Your task to perform on an android device: Open Amazon Image 0: 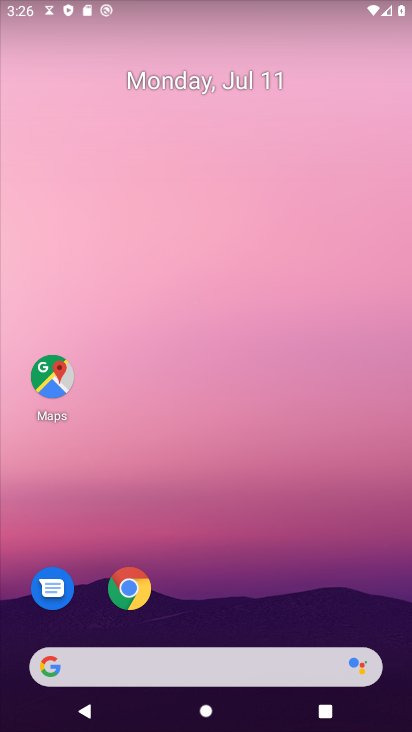
Step 0: click (116, 590)
Your task to perform on an android device: Open Amazon Image 1: 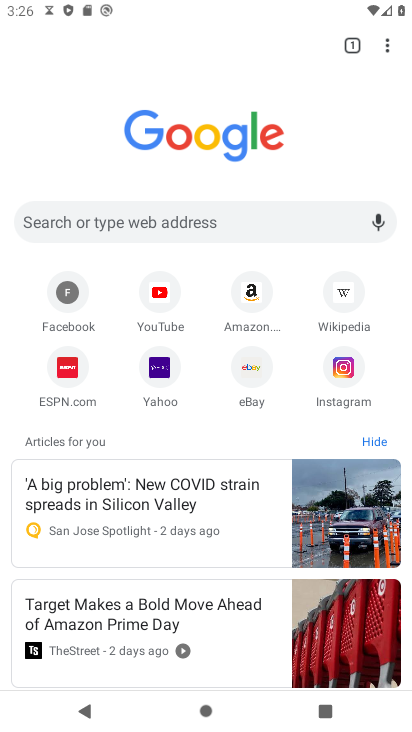
Step 1: click (244, 292)
Your task to perform on an android device: Open Amazon Image 2: 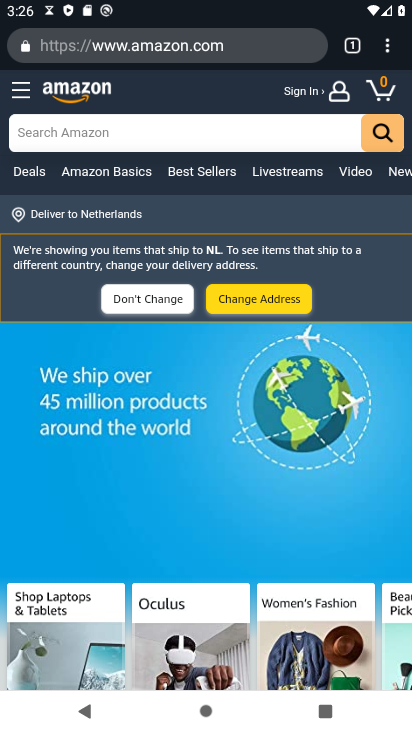
Step 2: task complete